Your task to perform on an android device: Open battery settings Image 0: 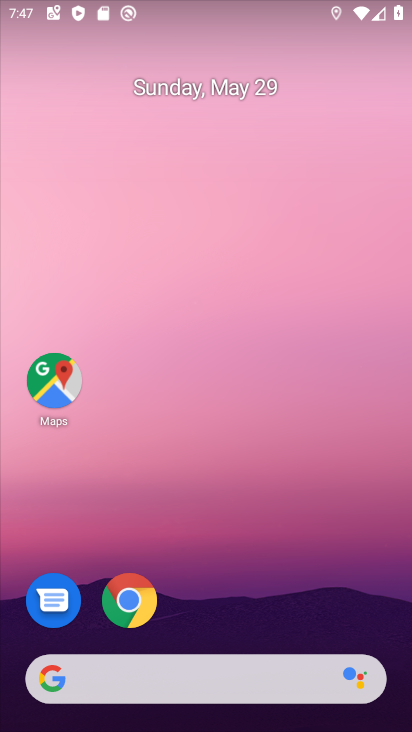
Step 0: drag from (302, 619) to (277, 4)
Your task to perform on an android device: Open battery settings Image 1: 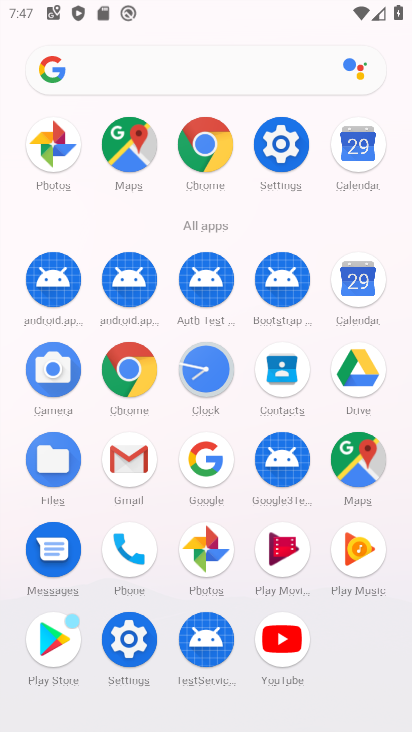
Step 1: click (126, 643)
Your task to perform on an android device: Open battery settings Image 2: 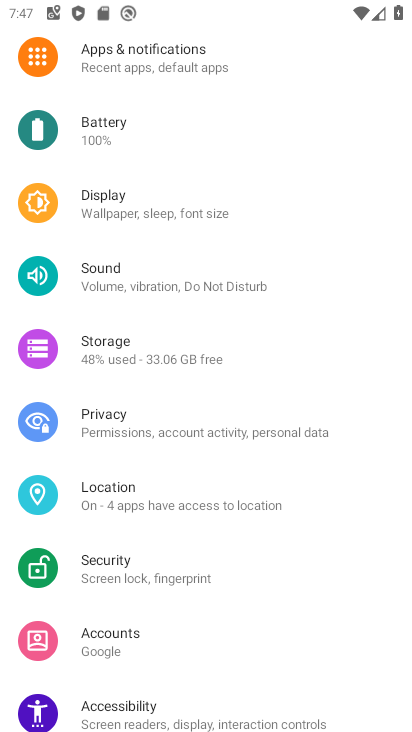
Step 2: click (158, 136)
Your task to perform on an android device: Open battery settings Image 3: 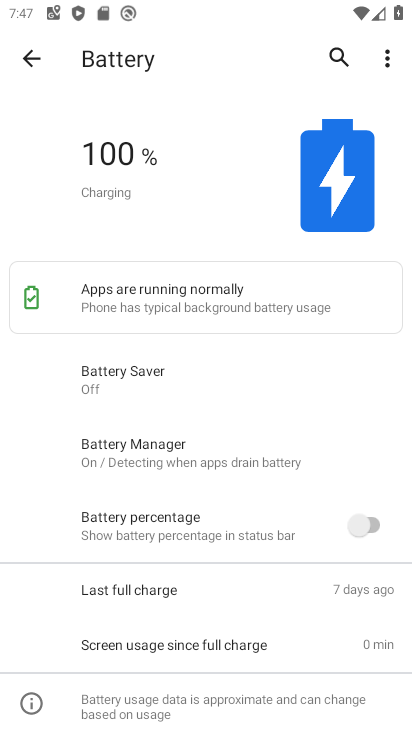
Step 3: task complete